Your task to perform on an android device: choose inbox layout in the gmail app Image 0: 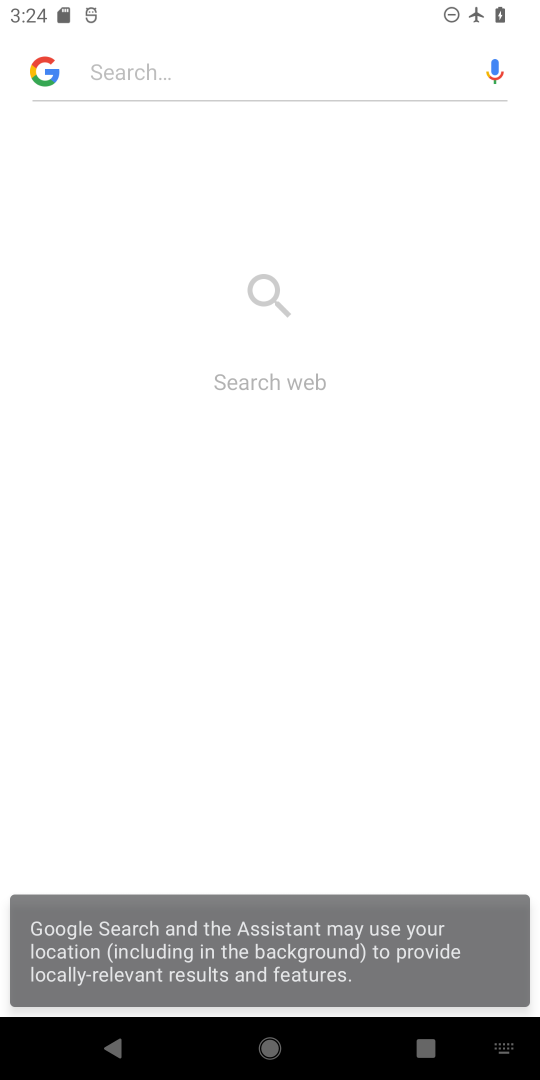
Step 0: press back button
Your task to perform on an android device: choose inbox layout in the gmail app Image 1: 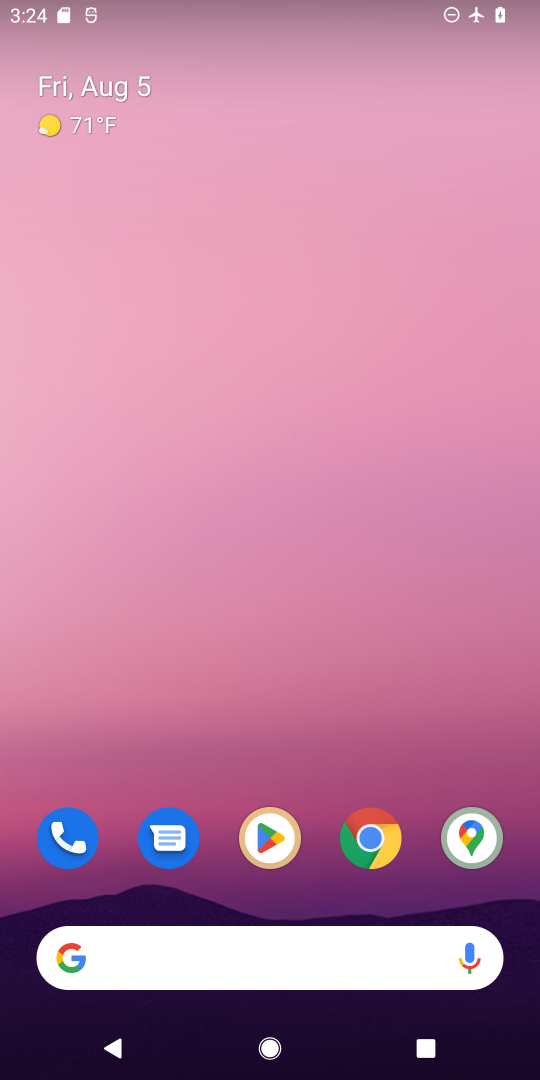
Step 1: drag from (329, 765) to (281, 37)
Your task to perform on an android device: choose inbox layout in the gmail app Image 2: 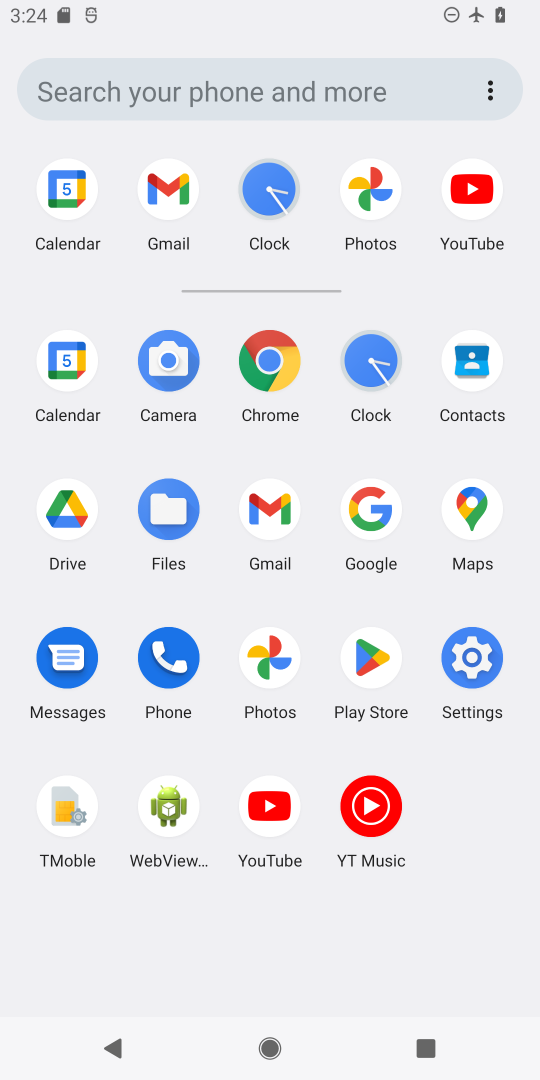
Step 2: click (172, 191)
Your task to perform on an android device: choose inbox layout in the gmail app Image 3: 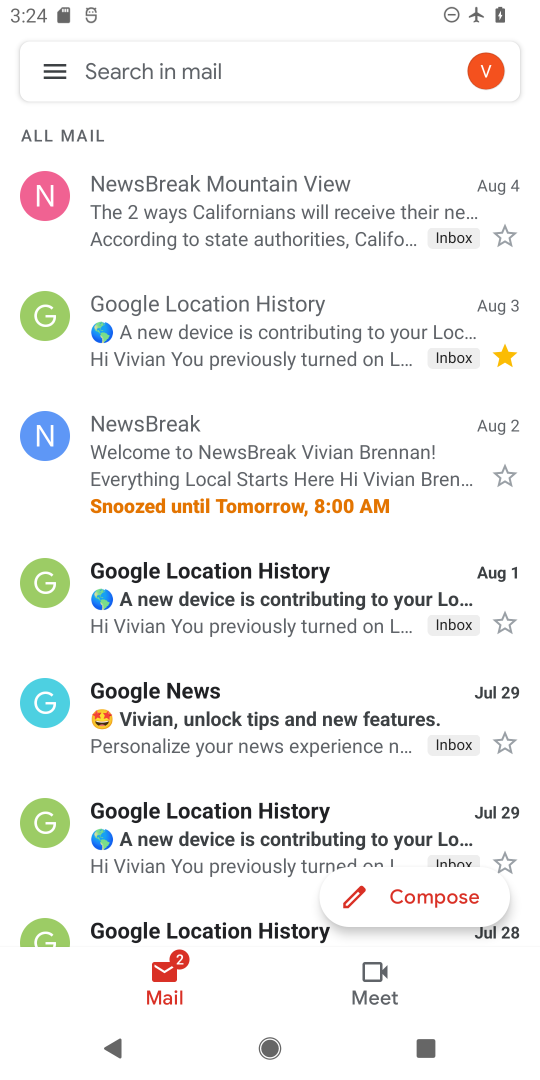
Step 3: click (61, 74)
Your task to perform on an android device: choose inbox layout in the gmail app Image 4: 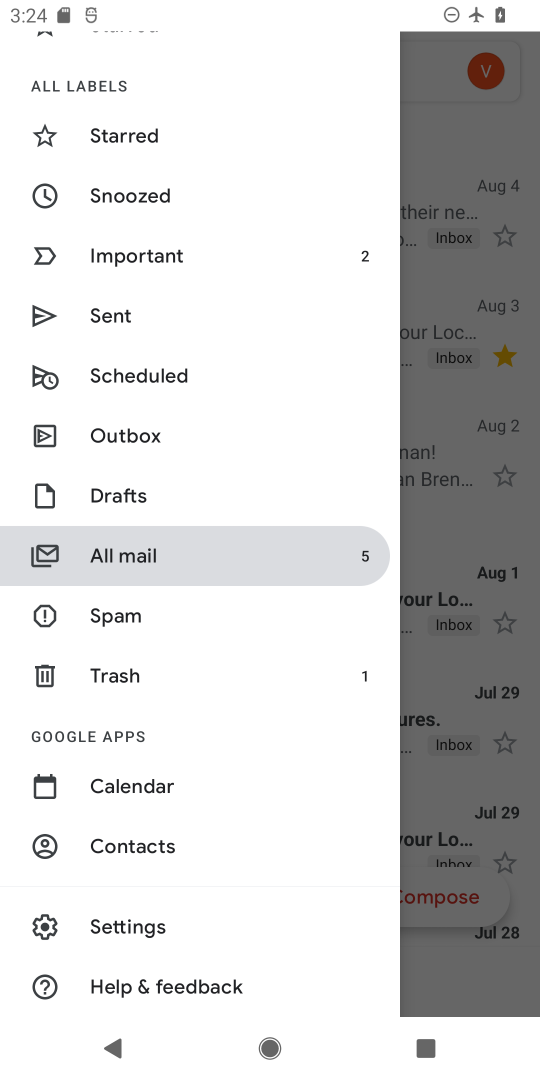
Step 4: click (151, 923)
Your task to perform on an android device: choose inbox layout in the gmail app Image 5: 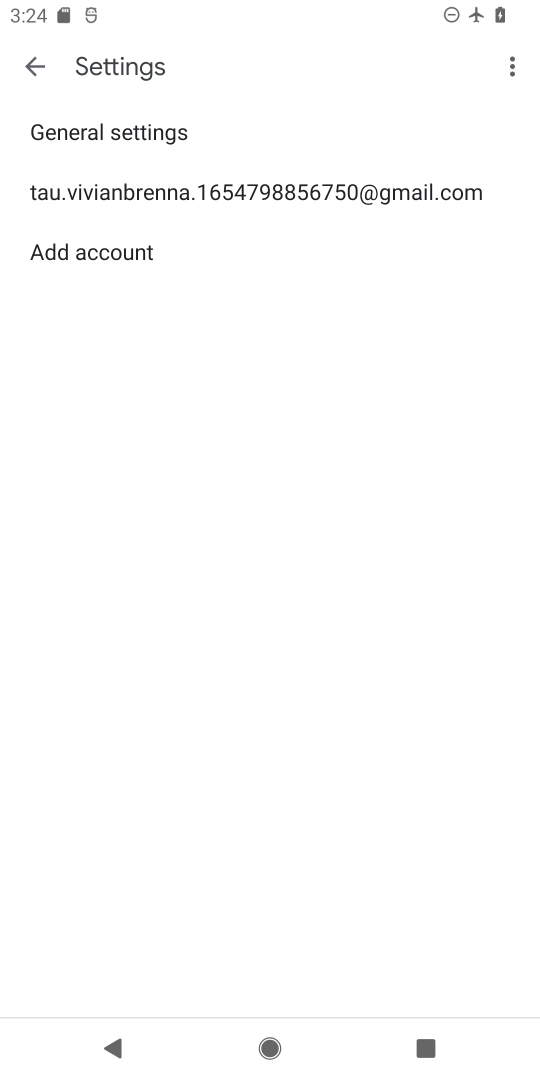
Step 5: click (411, 199)
Your task to perform on an android device: choose inbox layout in the gmail app Image 6: 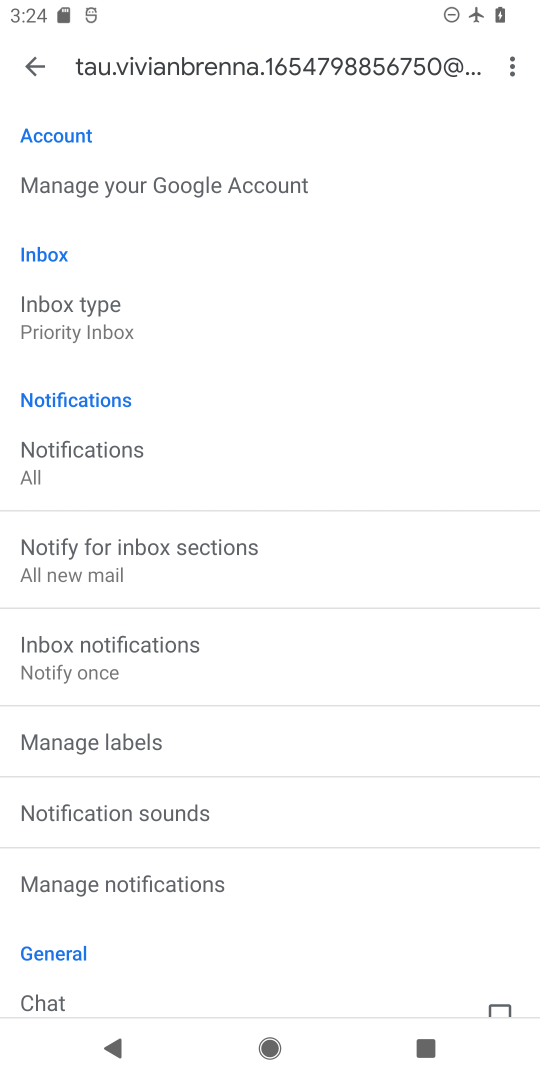
Step 6: click (257, 328)
Your task to perform on an android device: choose inbox layout in the gmail app Image 7: 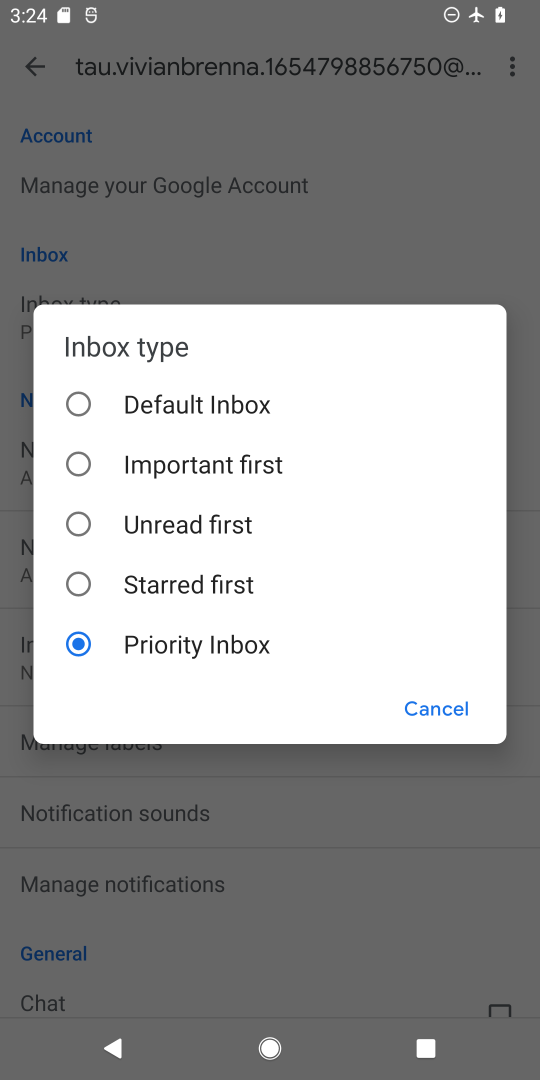
Step 7: click (217, 473)
Your task to perform on an android device: choose inbox layout in the gmail app Image 8: 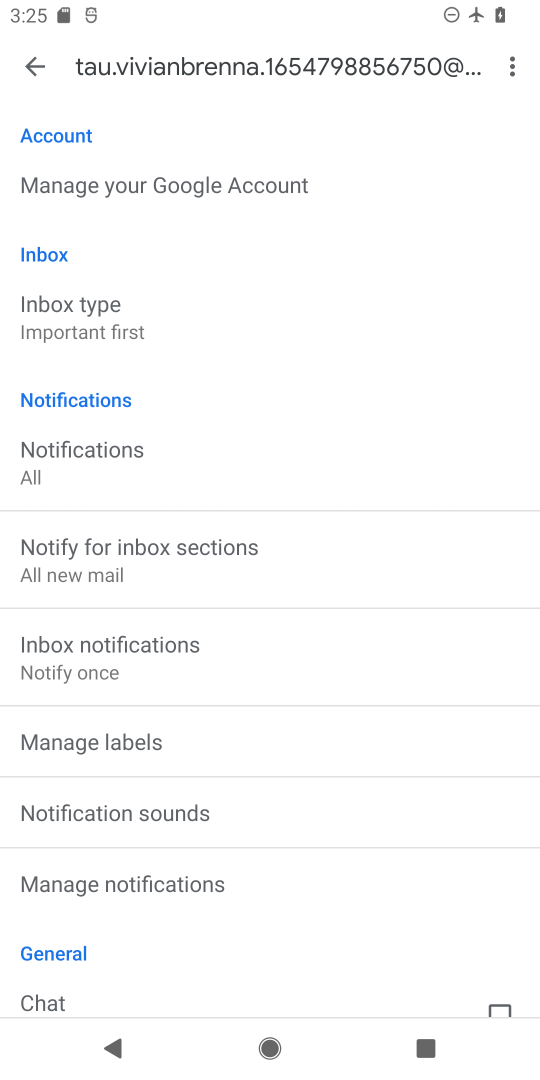
Step 8: task complete